Your task to perform on an android device: Open Youtube and go to the subscriptions tab Image 0: 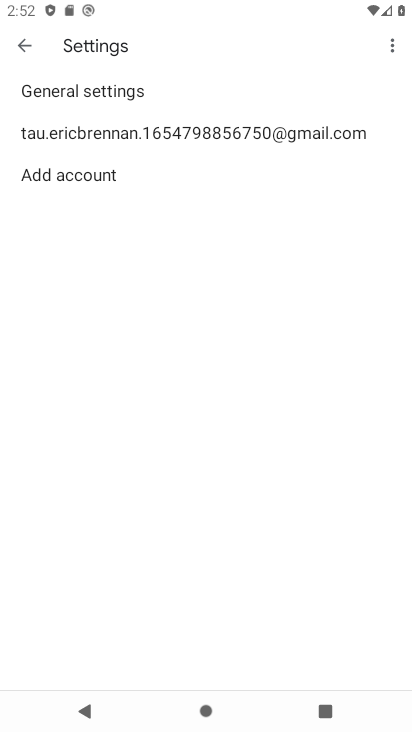
Step 0: press home button
Your task to perform on an android device: Open Youtube and go to the subscriptions tab Image 1: 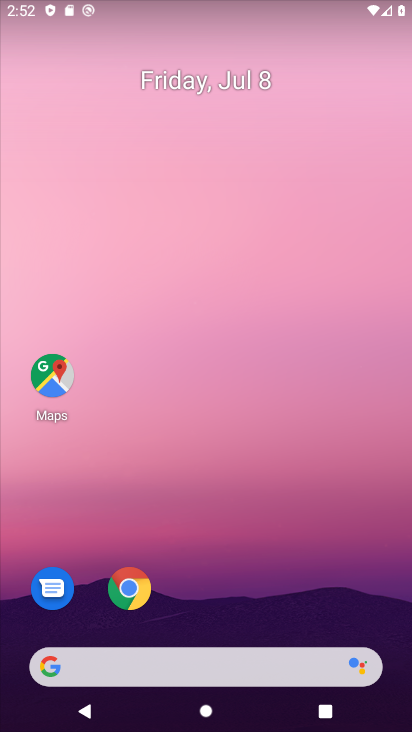
Step 1: drag from (124, 662) to (286, 144)
Your task to perform on an android device: Open Youtube and go to the subscriptions tab Image 2: 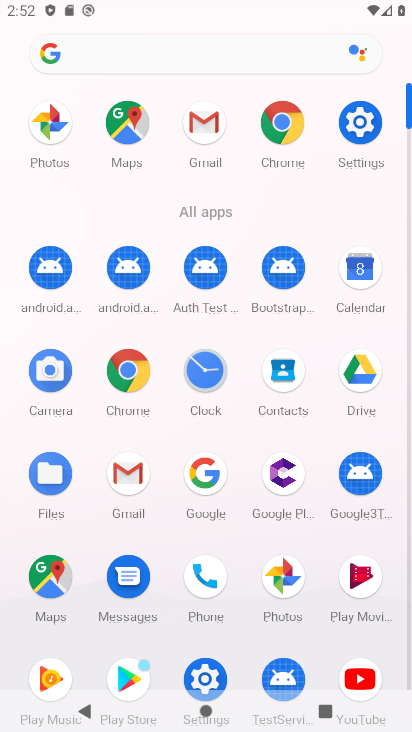
Step 2: click (357, 676)
Your task to perform on an android device: Open Youtube and go to the subscriptions tab Image 3: 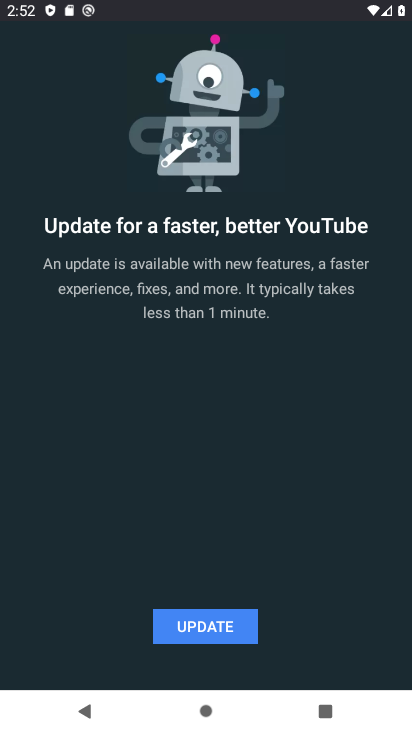
Step 3: click (194, 616)
Your task to perform on an android device: Open Youtube and go to the subscriptions tab Image 4: 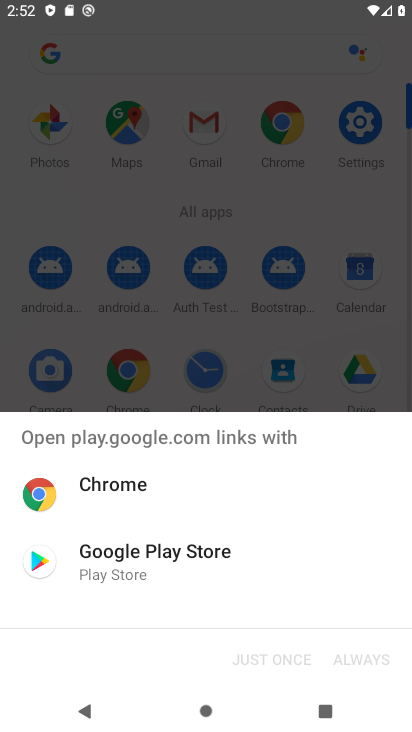
Step 4: click (141, 553)
Your task to perform on an android device: Open Youtube and go to the subscriptions tab Image 5: 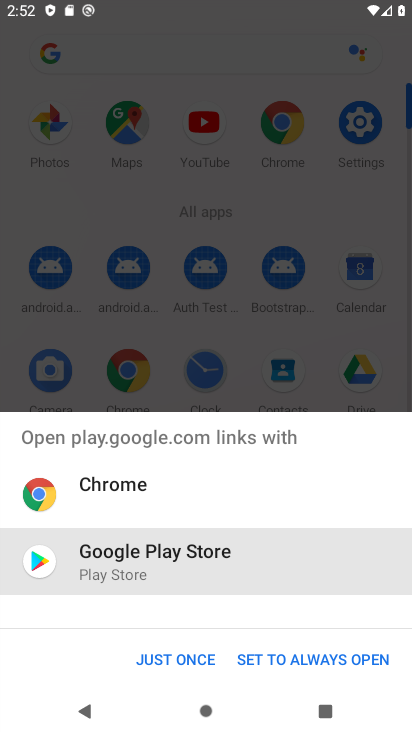
Step 5: click (194, 651)
Your task to perform on an android device: Open Youtube and go to the subscriptions tab Image 6: 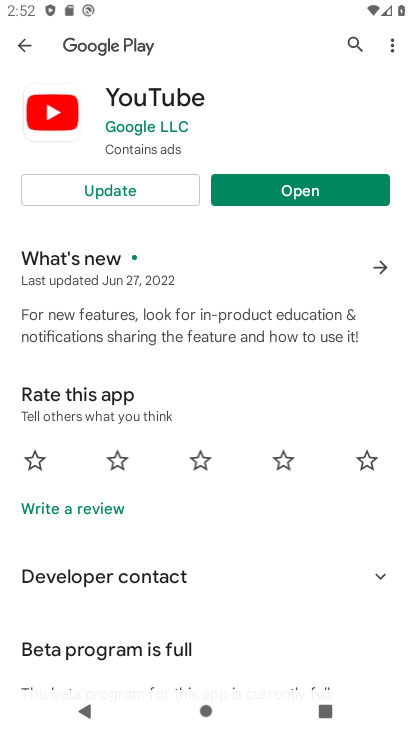
Step 6: click (138, 191)
Your task to perform on an android device: Open Youtube and go to the subscriptions tab Image 7: 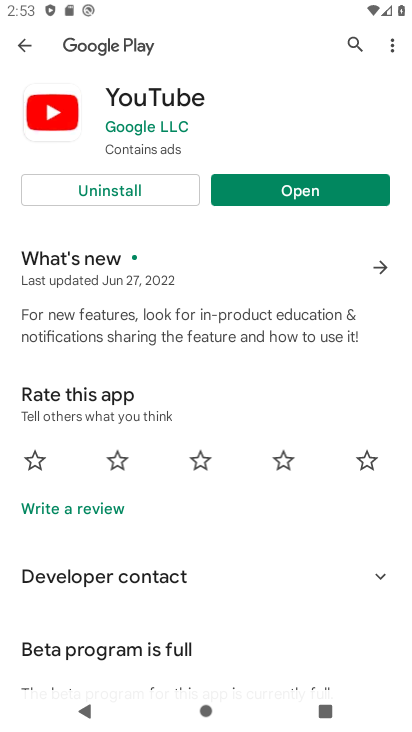
Step 7: click (288, 186)
Your task to perform on an android device: Open Youtube and go to the subscriptions tab Image 8: 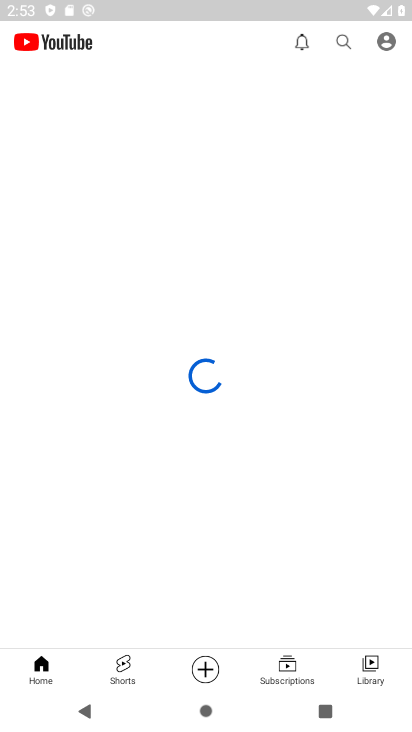
Step 8: click (263, 677)
Your task to perform on an android device: Open Youtube and go to the subscriptions tab Image 9: 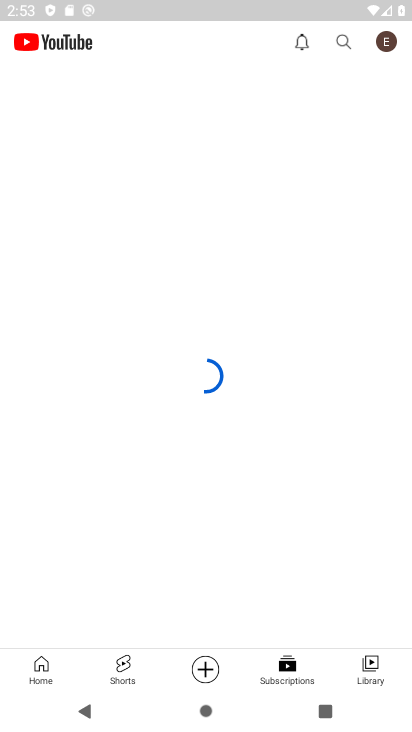
Step 9: click (301, 679)
Your task to perform on an android device: Open Youtube and go to the subscriptions tab Image 10: 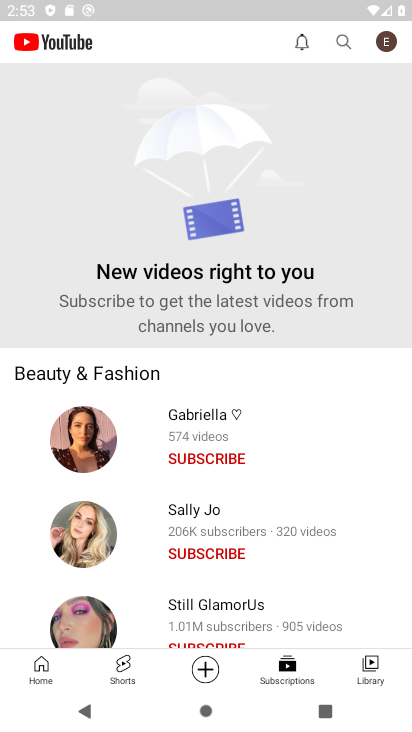
Step 10: task complete